Your task to perform on an android device: Open settings on Google Maps Image 0: 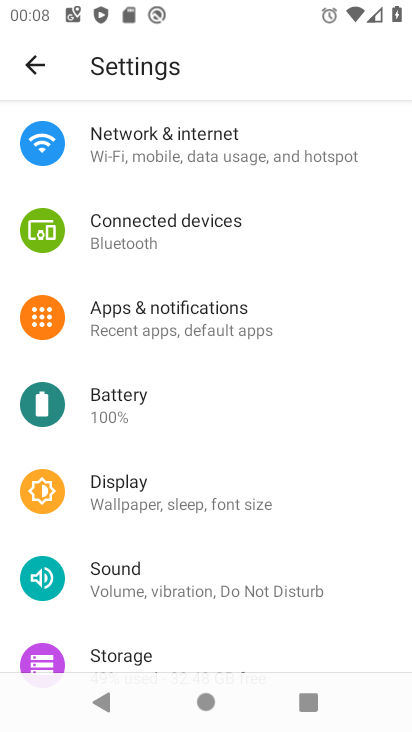
Step 0: press home button
Your task to perform on an android device: Open settings on Google Maps Image 1: 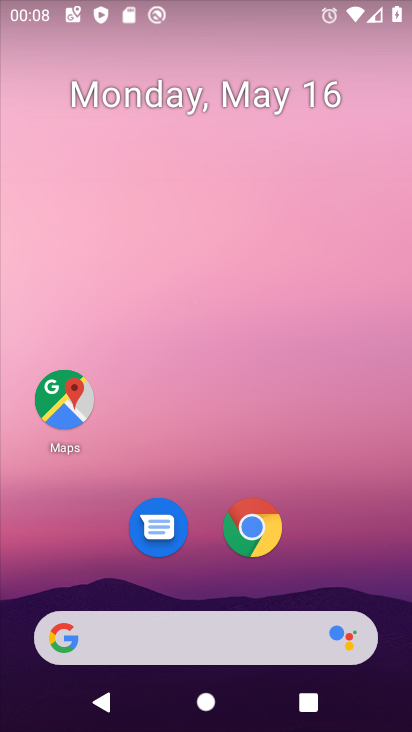
Step 1: click (61, 419)
Your task to perform on an android device: Open settings on Google Maps Image 2: 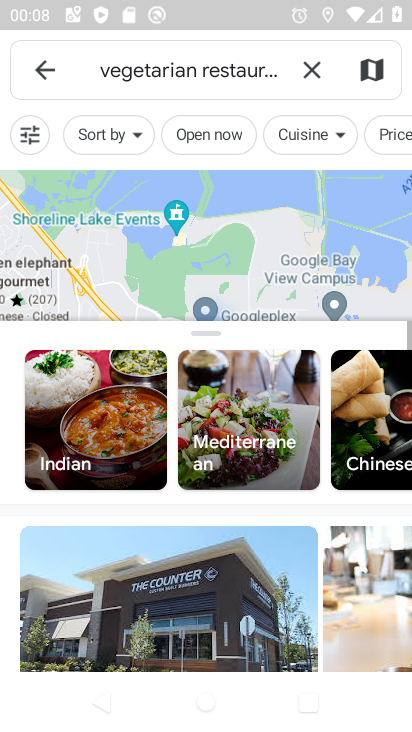
Step 2: task complete